Your task to perform on an android device: turn off wifi Image 0: 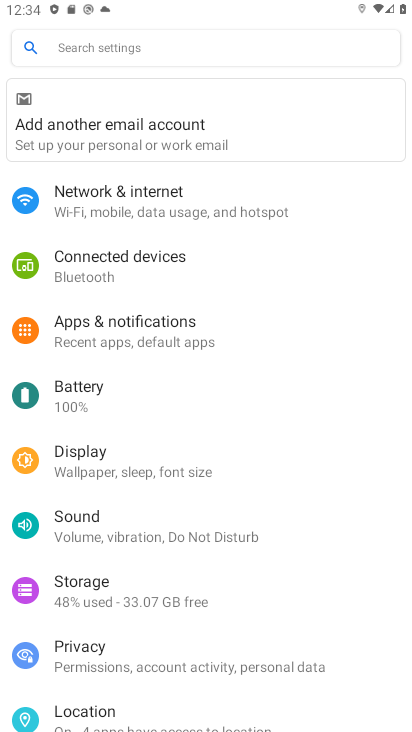
Step 0: press home button
Your task to perform on an android device: turn off wifi Image 1: 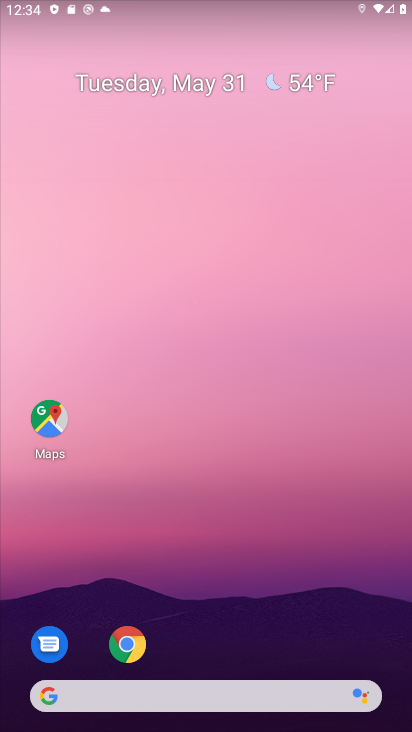
Step 1: drag from (194, 3) to (205, 411)
Your task to perform on an android device: turn off wifi Image 2: 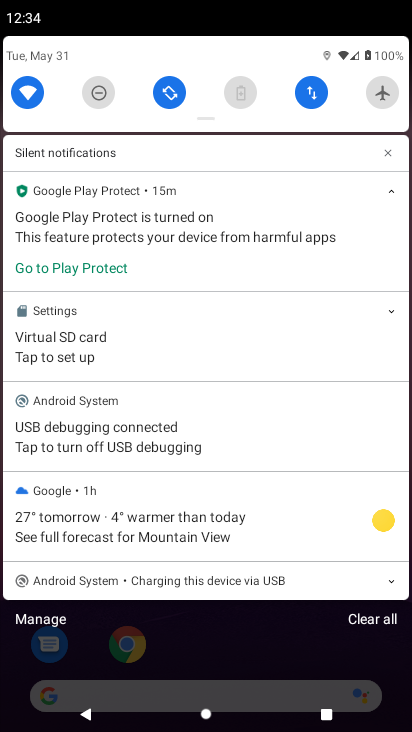
Step 2: click (30, 93)
Your task to perform on an android device: turn off wifi Image 3: 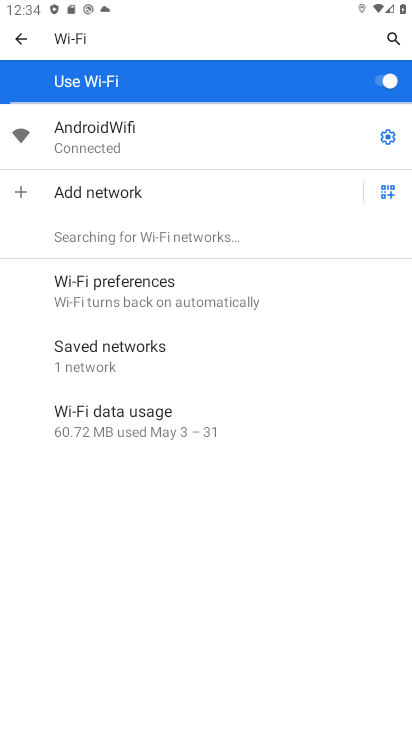
Step 3: click (393, 83)
Your task to perform on an android device: turn off wifi Image 4: 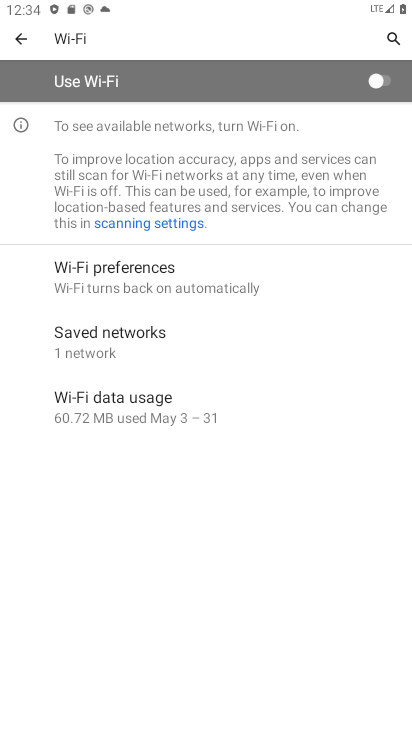
Step 4: task complete